Your task to perform on an android device: star an email in the gmail app Image 0: 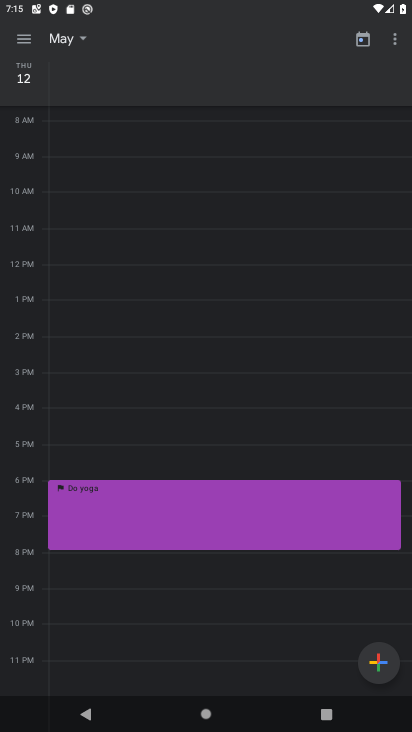
Step 0: press home button
Your task to perform on an android device: star an email in the gmail app Image 1: 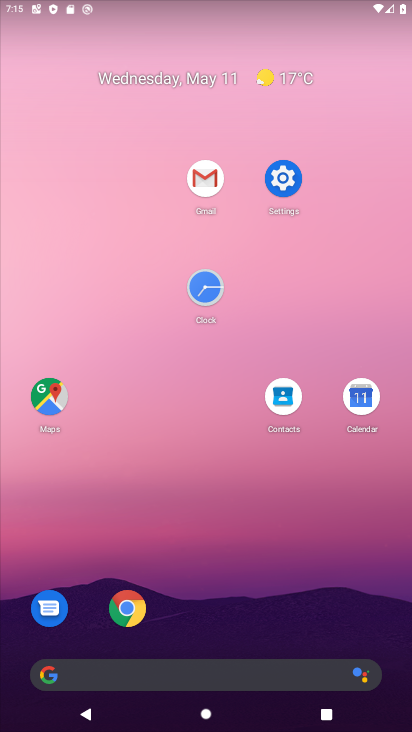
Step 1: drag from (210, 590) to (224, 142)
Your task to perform on an android device: star an email in the gmail app Image 2: 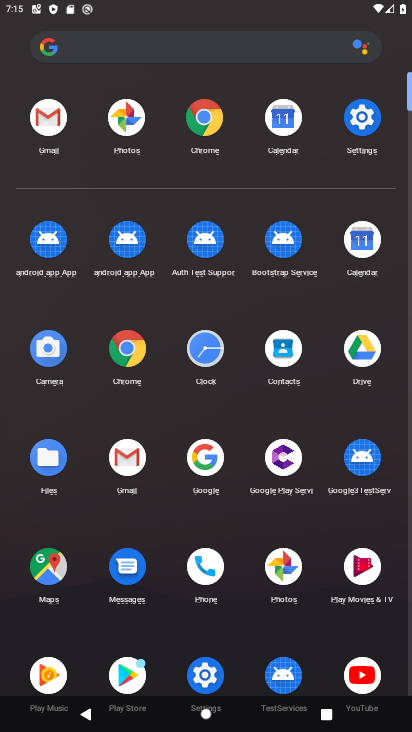
Step 2: click (128, 487)
Your task to perform on an android device: star an email in the gmail app Image 3: 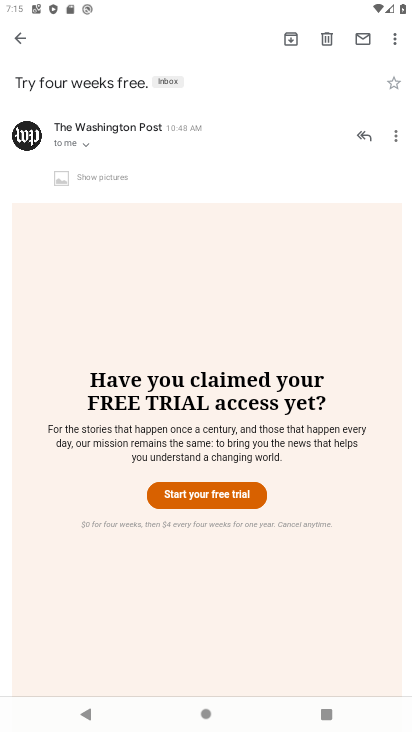
Step 3: click (386, 74)
Your task to perform on an android device: star an email in the gmail app Image 4: 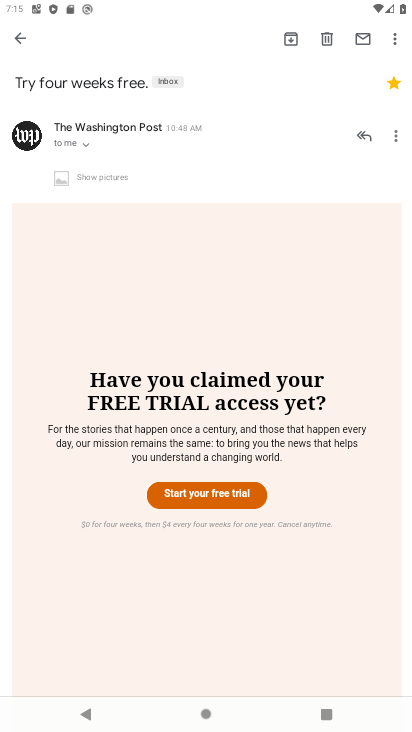
Step 4: task complete